Your task to perform on an android device: Go to eBay Image 0: 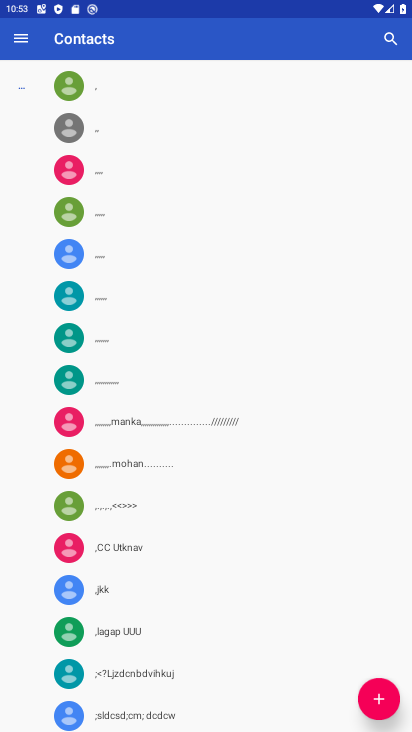
Step 0: press home button
Your task to perform on an android device: Go to eBay Image 1: 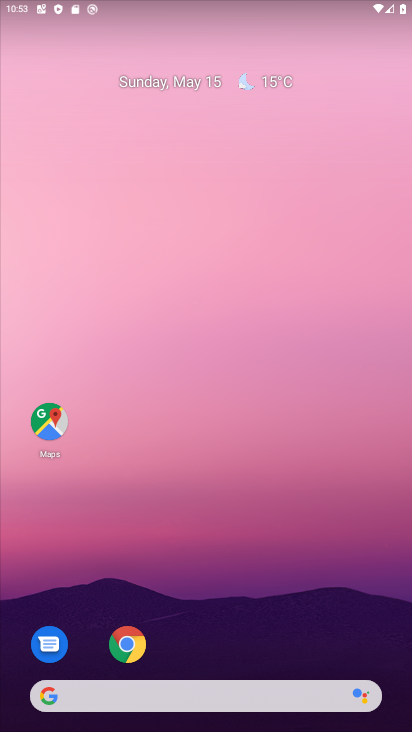
Step 1: click (132, 640)
Your task to perform on an android device: Go to eBay Image 2: 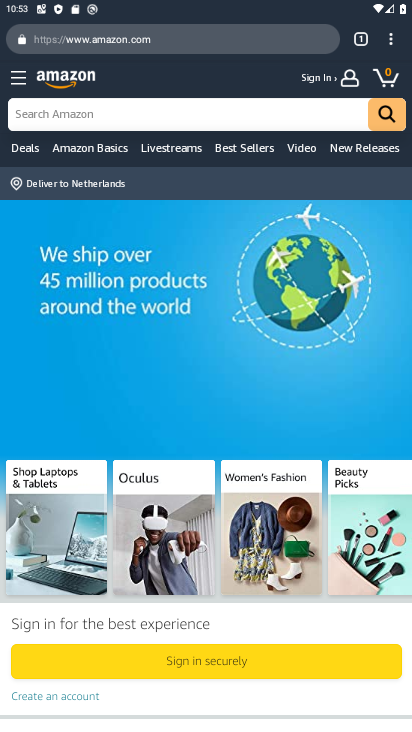
Step 2: click (343, 25)
Your task to perform on an android device: Go to eBay Image 3: 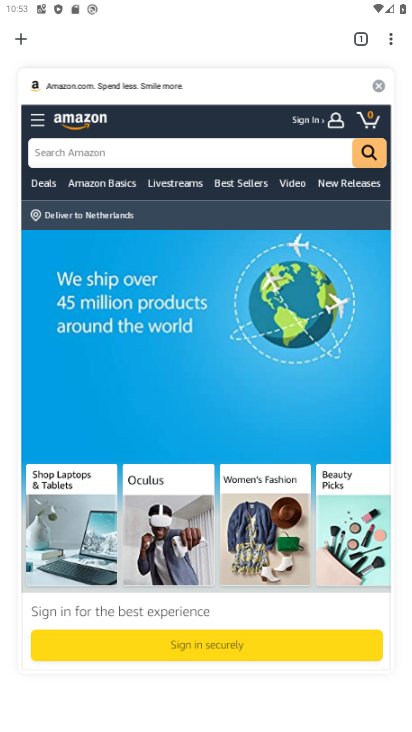
Step 3: click (381, 85)
Your task to perform on an android device: Go to eBay Image 4: 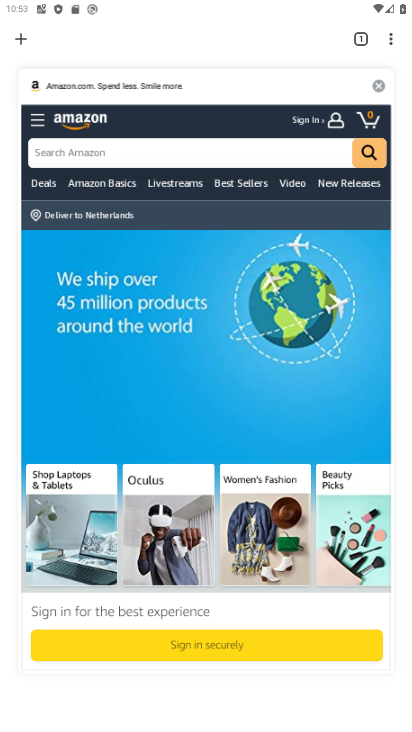
Step 4: click (380, 90)
Your task to perform on an android device: Go to eBay Image 5: 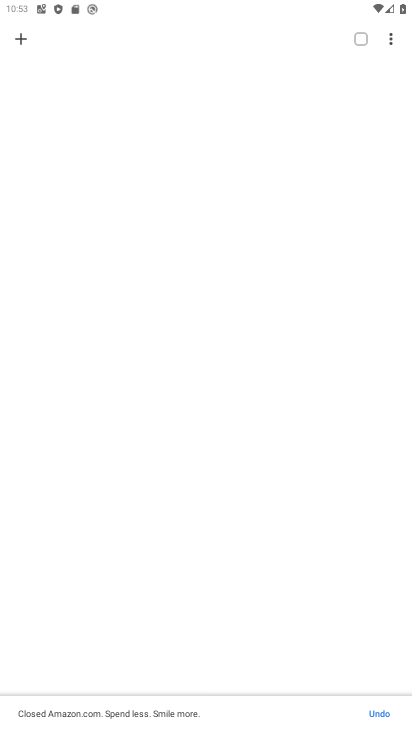
Step 5: click (20, 36)
Your task to perform on an android device: Go to eBay Image 6: 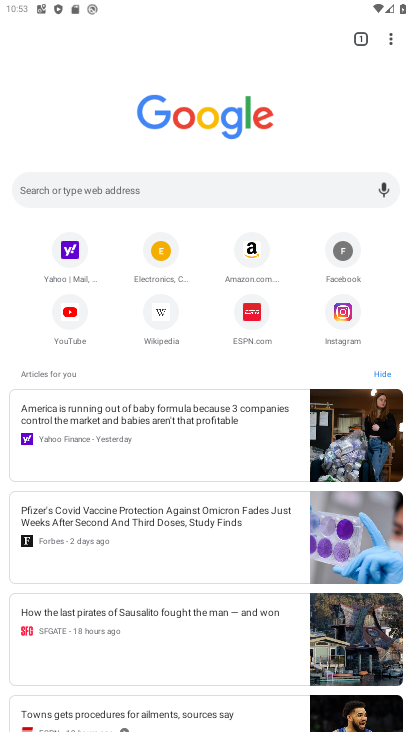
Step 6: click (198, 196)
Your task to perform on an android device: Go to eBay Image 7: 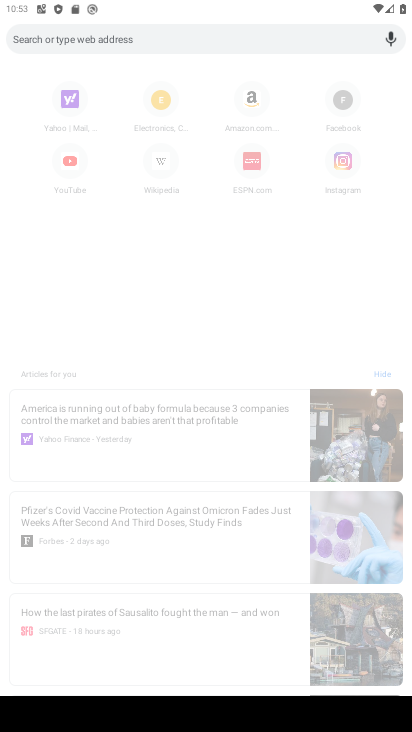
Step 7: type "ebay.com"
Your task to perform on an android device: Go to eBay Image 8: 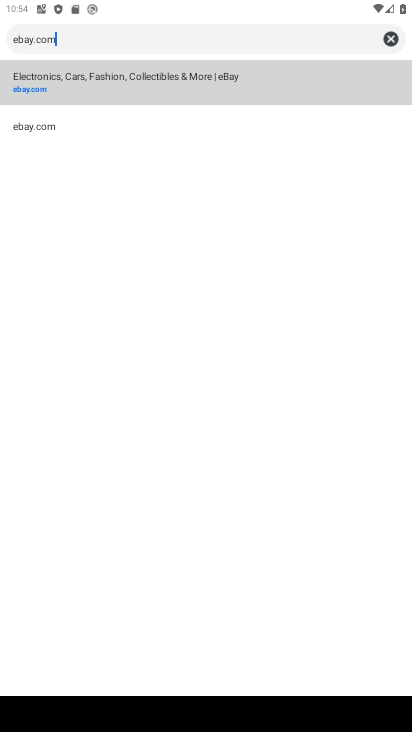
Step 8: click (125, 78)
Your task to perform on an android device: Go to eBay Image 9: 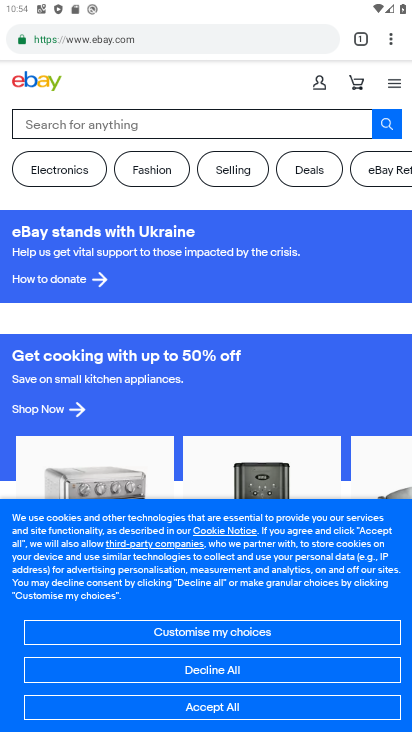
Step 9: task complete